Your task to perform on an android device: Open Google Maps Image 0: 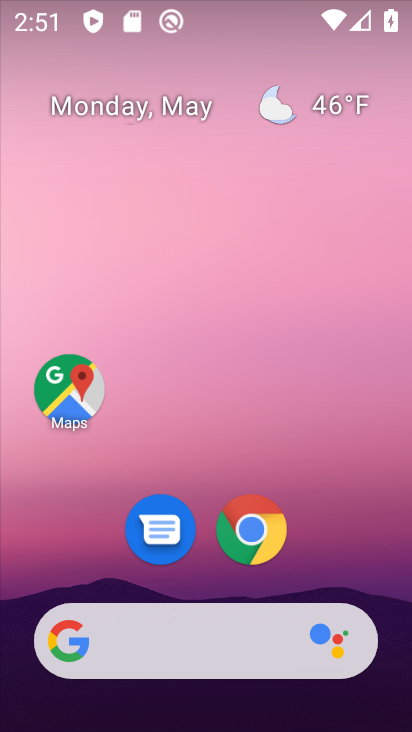
Step 0: drag from (372, 560) to (364, 151)
Your task to perform on an android device: Open Google Maps Image 1: 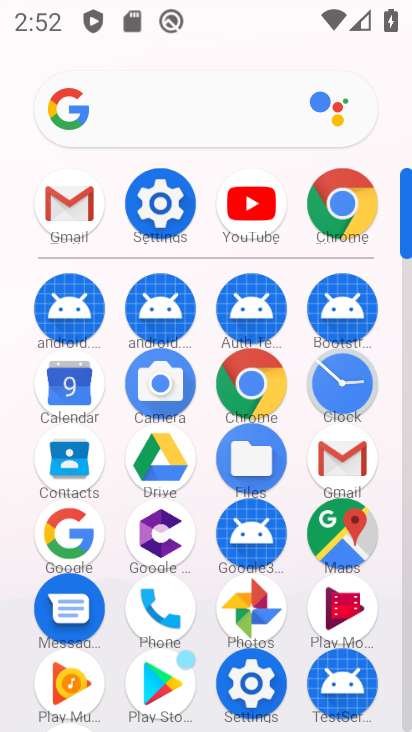
Step 1: click (337, 540)
Your task to perform on an android device: Open Google Maps Image 2: 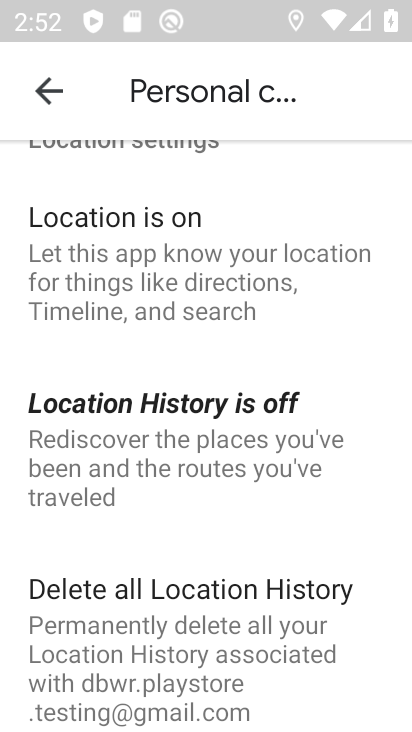
Step 2: click (57, 89)
Your task to perform on an android device: Open Google Maps Image 3: 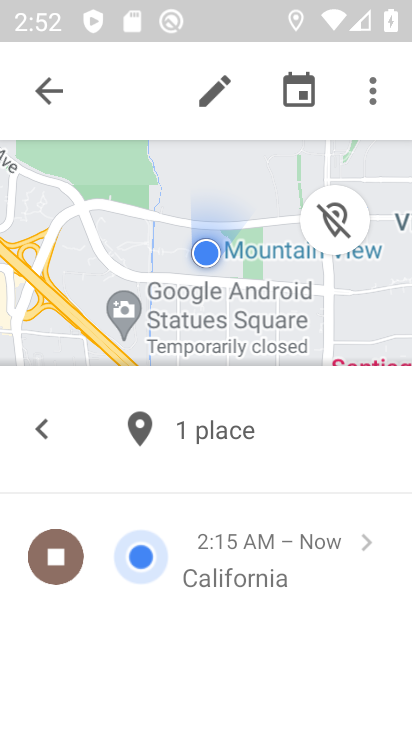
Step 3: click (49, 100)
Your task to perform on an android device: Open Google Maps Image 4: 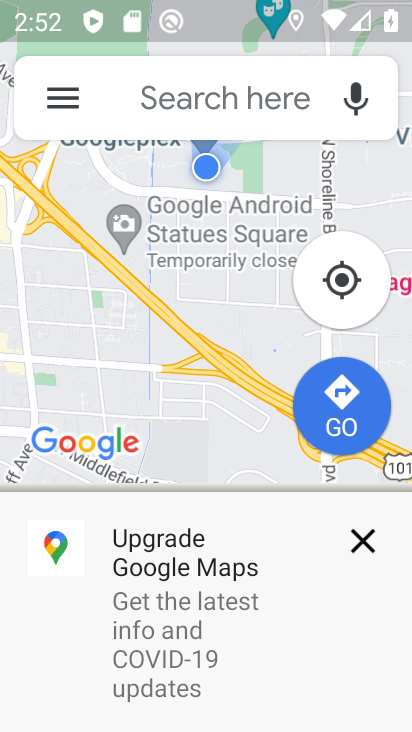
Step 4: click (365, 546)
Your task to perform on an android device: Open Google Maps Image 5: 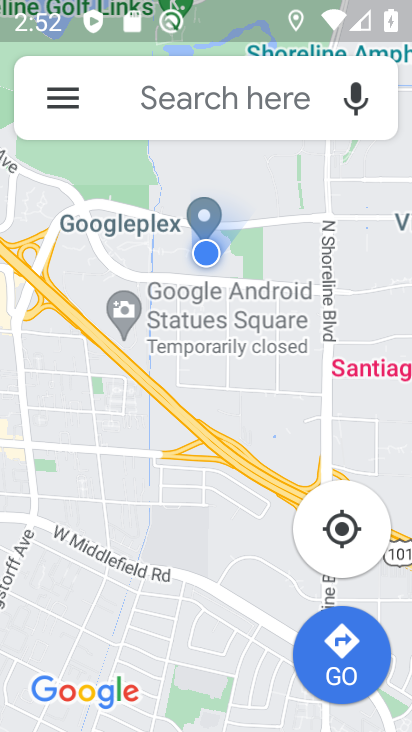
Step 5: task complete